Your task to perform on an android device: clear history in the chrome app Image 0: 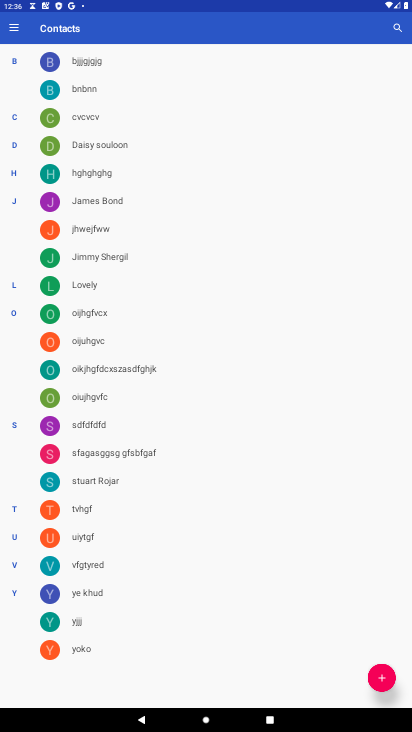
Step 0: press home button
Your task to perform on an android device: clear history in the chrome app Image 1: 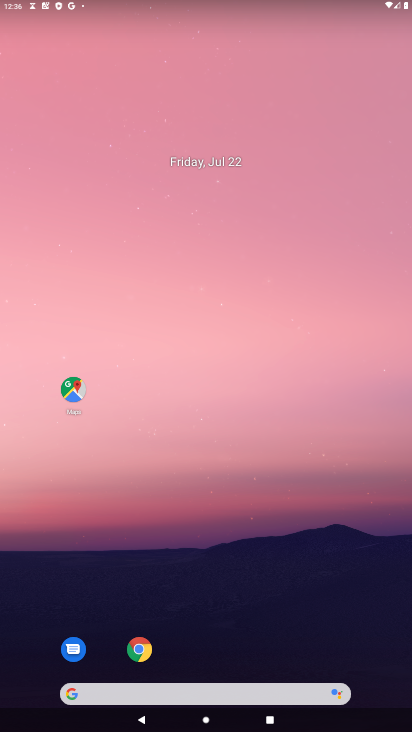
Step 1: click (132, 654)
Your task to perform on an android device: clear history in the chrome app Image 2: 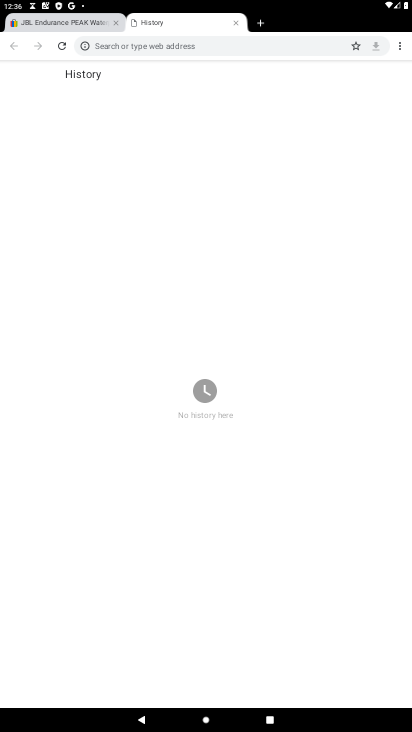
Step 2: click (400, 42)
Your task to perform on an android device: clear history in the chrome app Image 3: 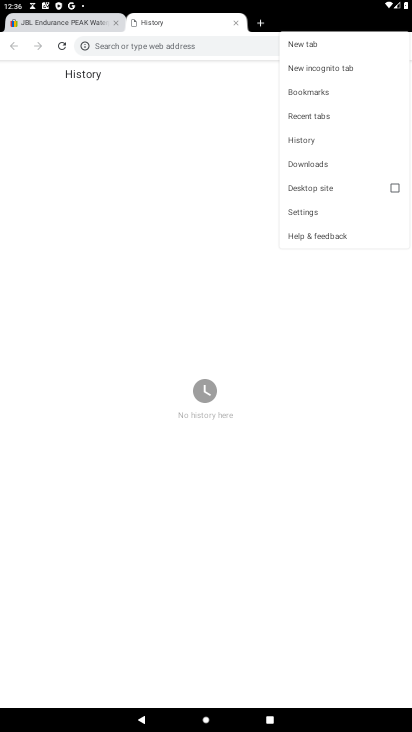
Step 3: click (304, 140)
Your task to perform on an android device: clear history in the chrome app Image 4: 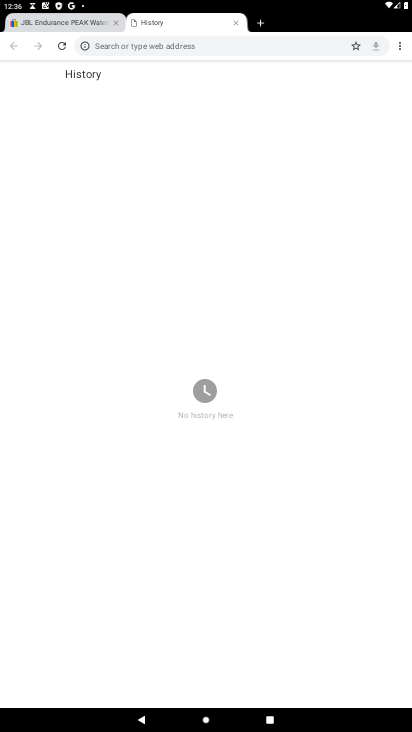
Step 4: task complete